Your task to perform on an android device: Show the shopping cart on newegg. Search for macbook pro 13 inch on newegg, select the first entry, and add it to the cart. Image 0: 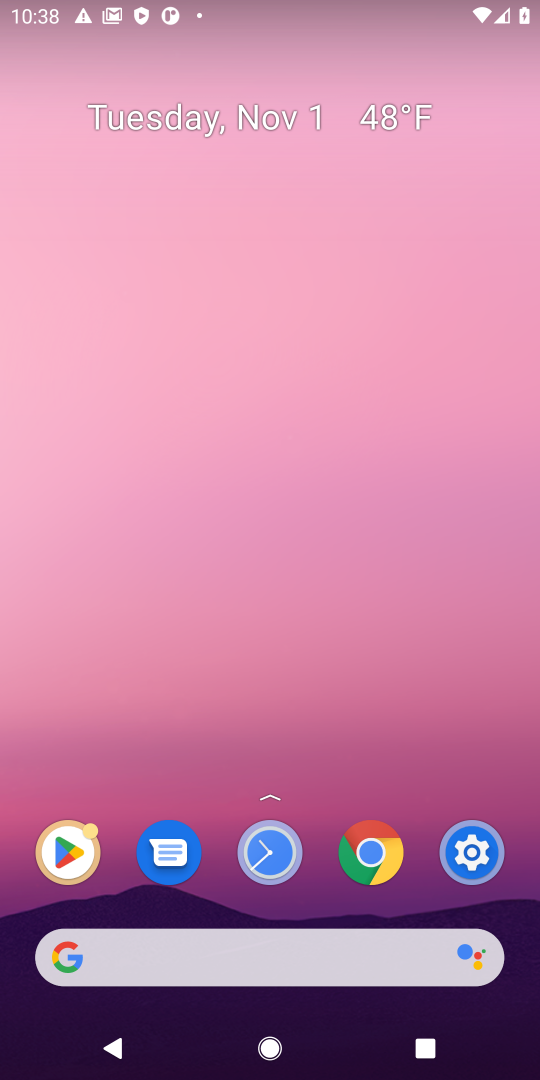
Step 0: click (348, 963)
Your task to perform on an android device: Show the shopping cart on newegg. Search for macbook pro 13 inch on newegg, select the first entry, and add it to the cart. Image 1: 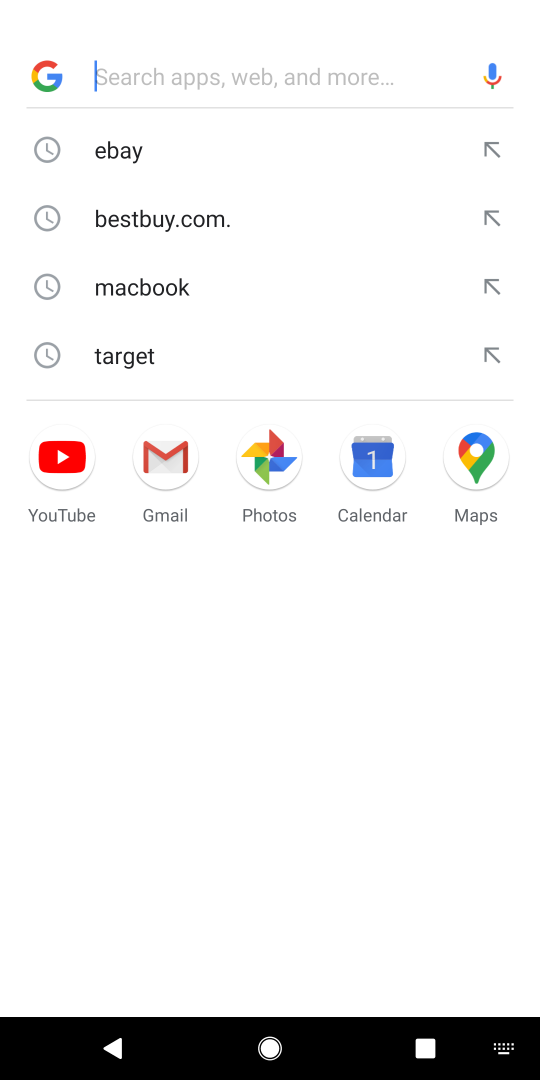
Step 1: type "newegg"
Your task to perform on an android device: Show the shopping cart on newegg. Search for macbook pro 13 inch on newegg, select the first entry, and add it to the cart. Image 2: 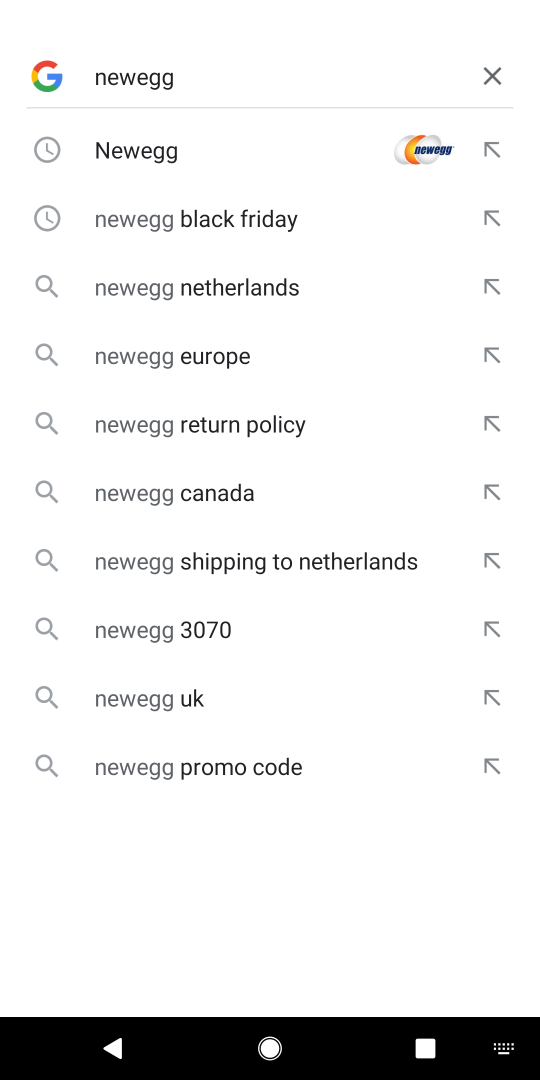
Step 2: type ""
Your task to perform on an android device: Show the shopping cart on newegg. Search for macbook pro 13 inch on newegg, select the first entry, and add it to the cart. Image 3: 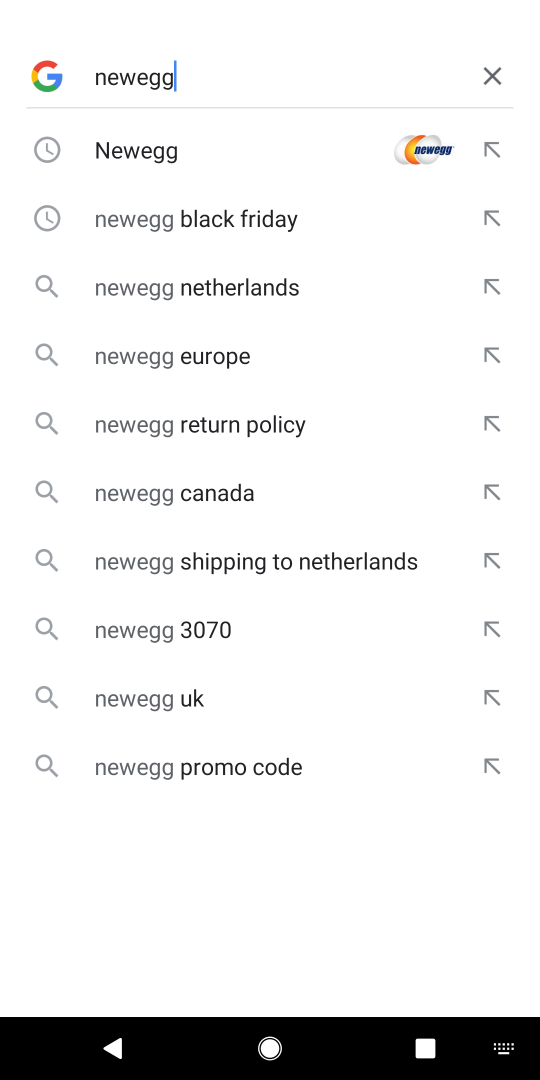
Step 3: press enter
Your task to perform on an android device: Show the shopping cart on newegg. Search for macbook pro 13 inch on newegg, select the first entry, and add it to the cart. Image 4: 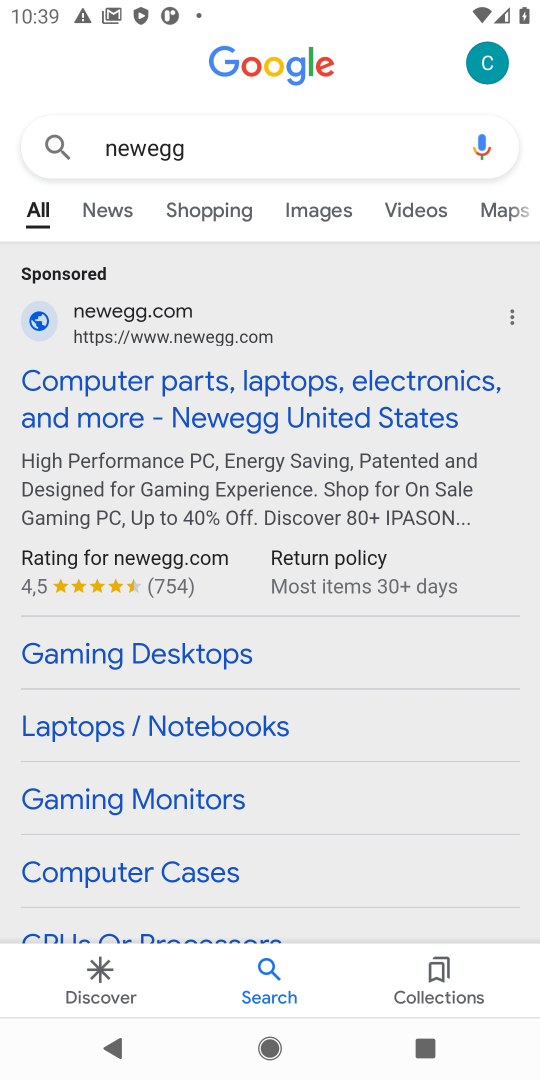
Step 4: click (332, 391)
Your task to perform on an android device: Show the shopping cart on newegg. Search for macbook pro 13 inch on newegg, select the first entry, and add it to the cart. Image 5: 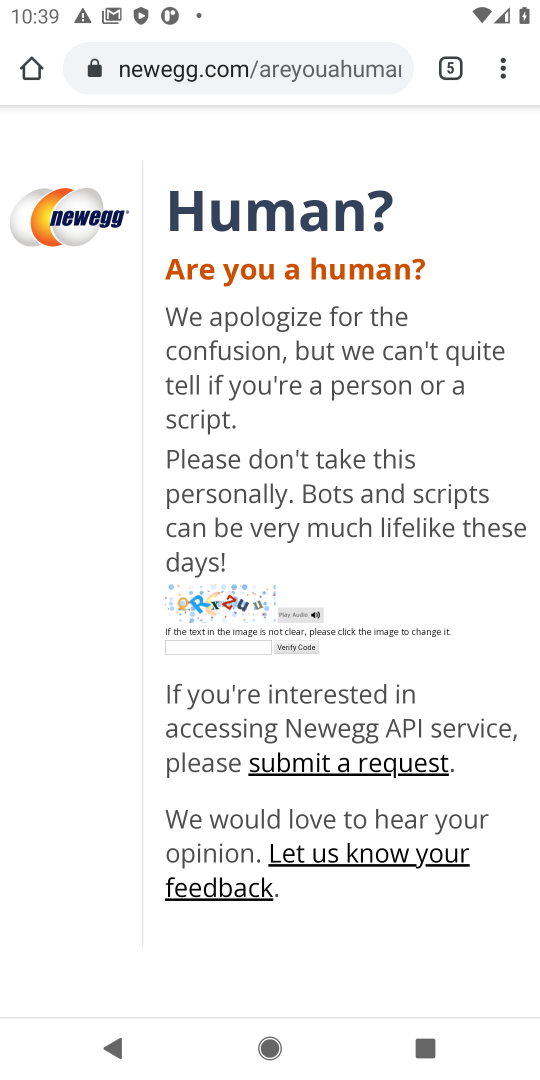
Step 5: task complete